Your task to perform on an android device: install app "Pandora - Music & Podcasts" Image 0: 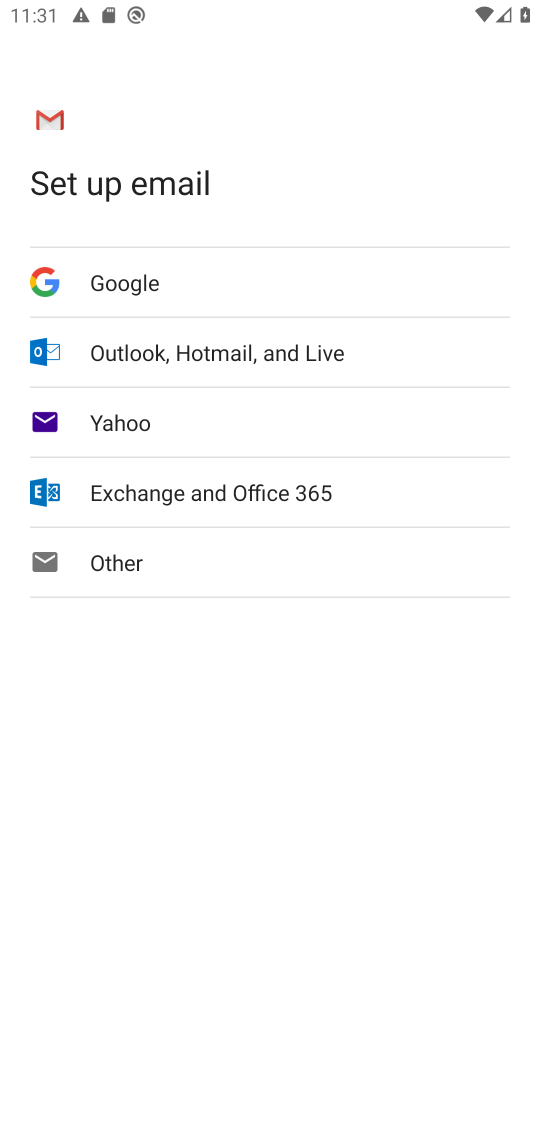
Step 0: press home button
Your task to perform on an android device: install app "Pandora - Music & Podcasts" Image 1: 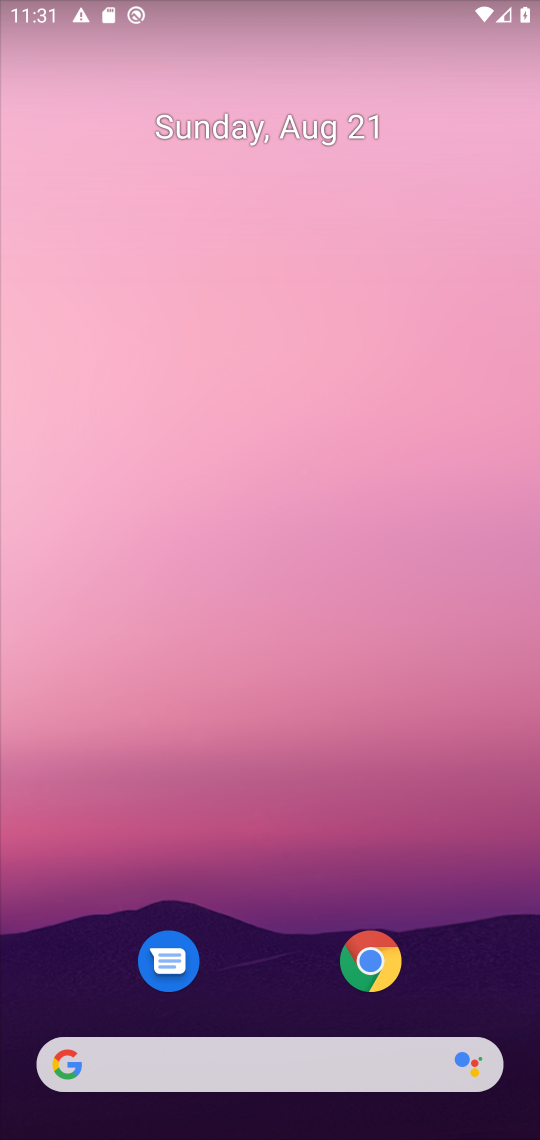
Step 1: drag from (447, 899) to (489, 91)
Your task to perform on an android device: install app "Pandora - Music & Podcasts" Image 2: 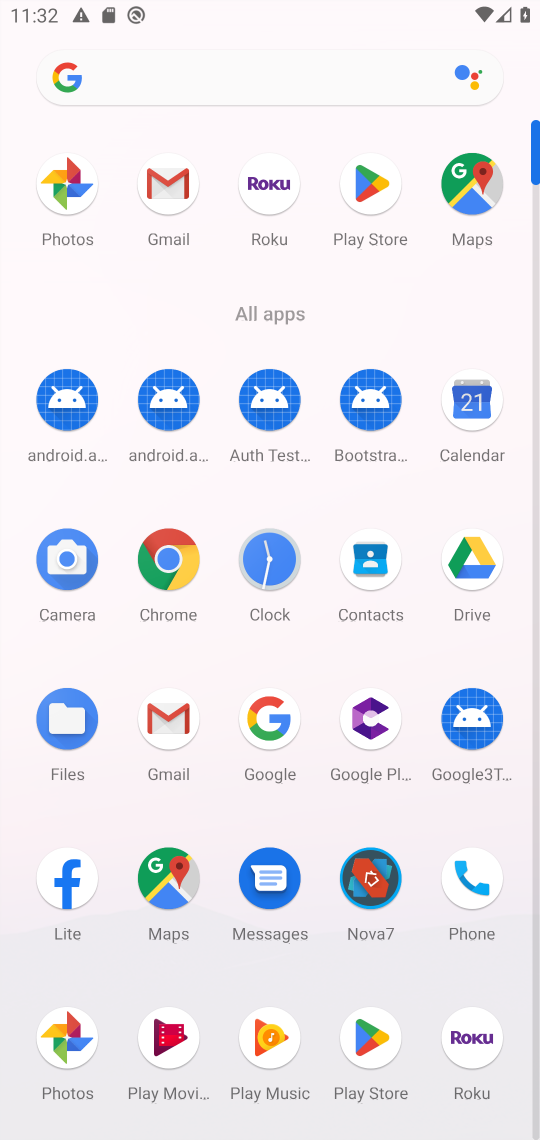
Step 2: click (365, 201)
Your task to perform on an android device: install app "Pandora - Music & Podcasts" Image 3: 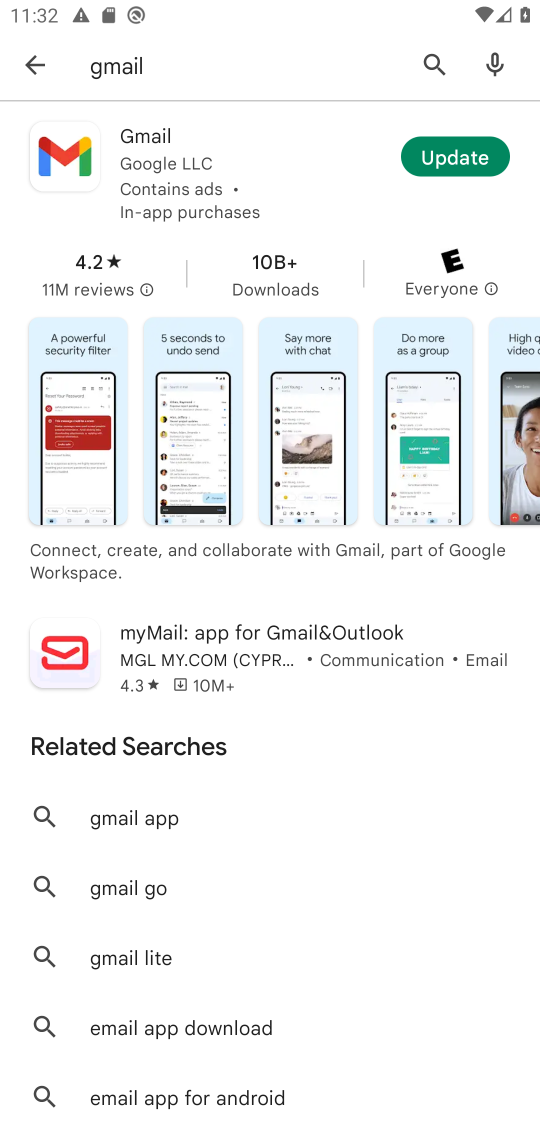
Step 3: press back button
Your task to perform on an android device: install app "Pandora - Music & Podcasts" Image 4: 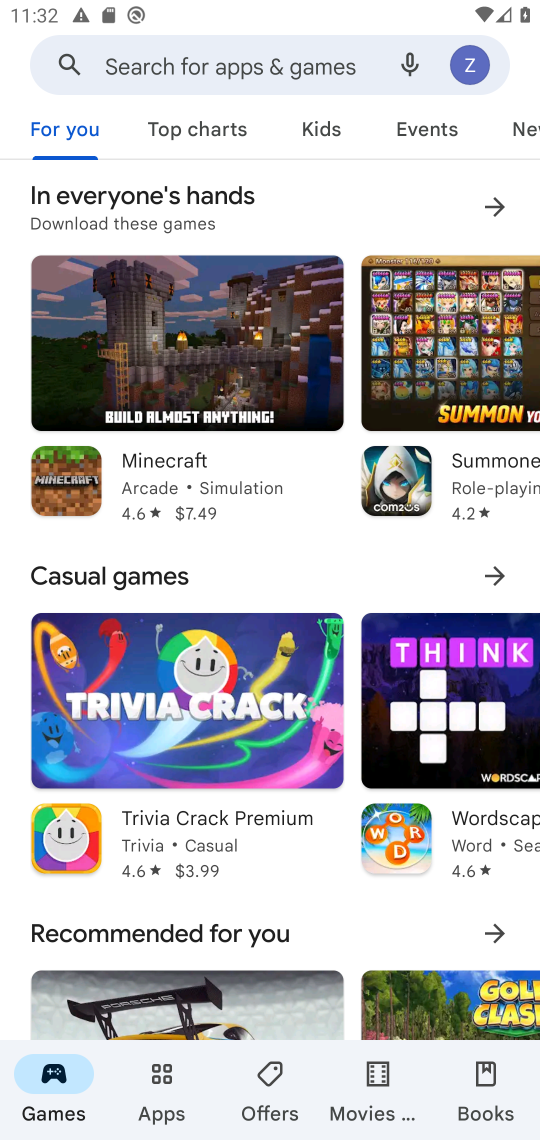
Step 4: click (280, 61)
Your task to perform on an android device: install app "Pandora - Music & Podcasts" Image 5: 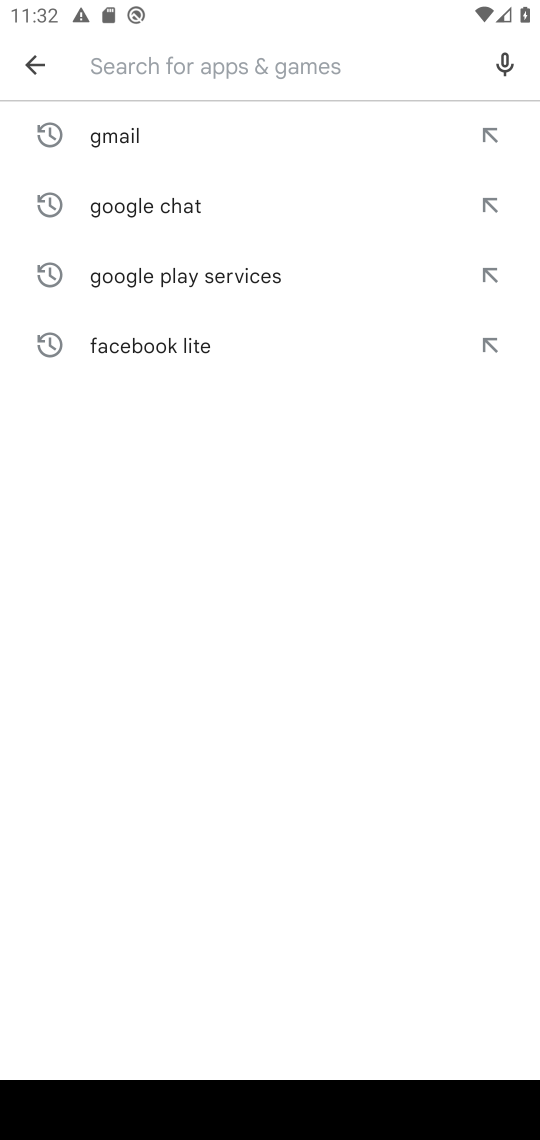
Step 5: press enter
Your task to perform on an android device: install app "Pandora - Music & Podcasts" Image 6: 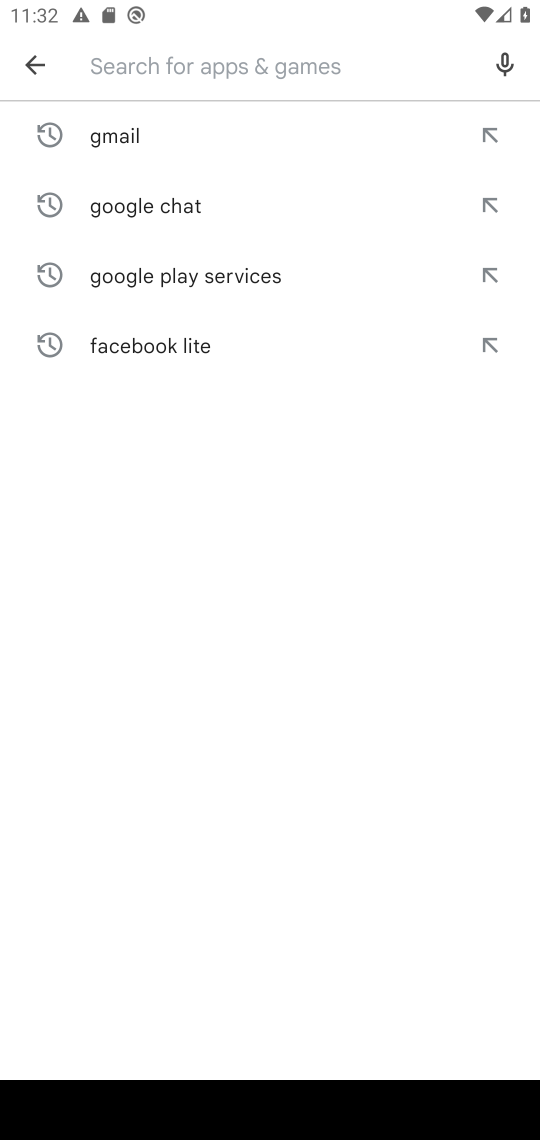
Step 6: type "Pandora - Music & Podcasts"
Your task to perform on an android device: install app "Pandora - Music & Podcasts" Image 7: 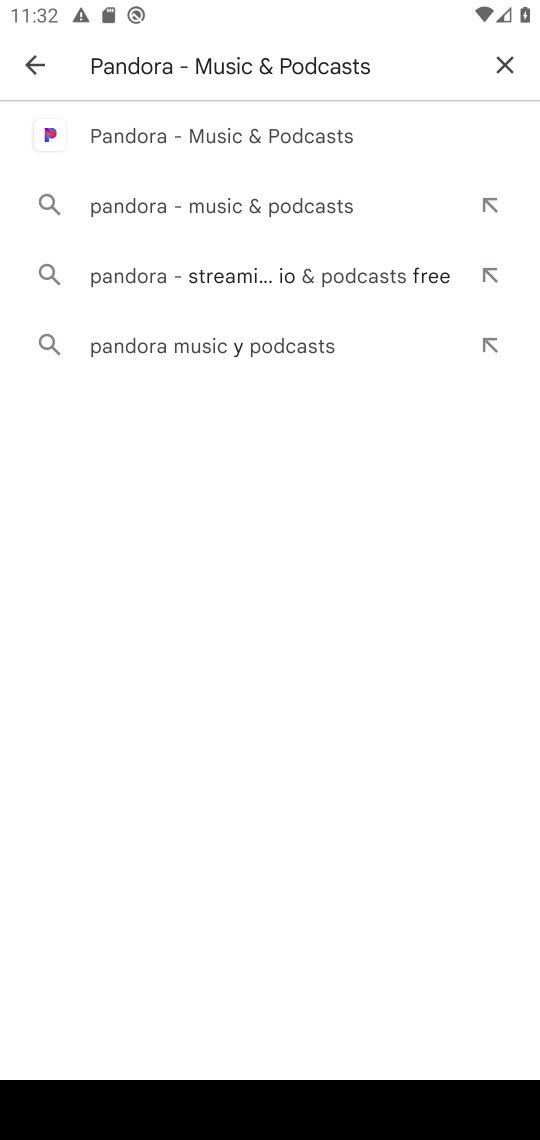
Step 7: click (281, 137)
Your task to perform on an android device: install app "Pandora - Music & Podcasts" Image 8: 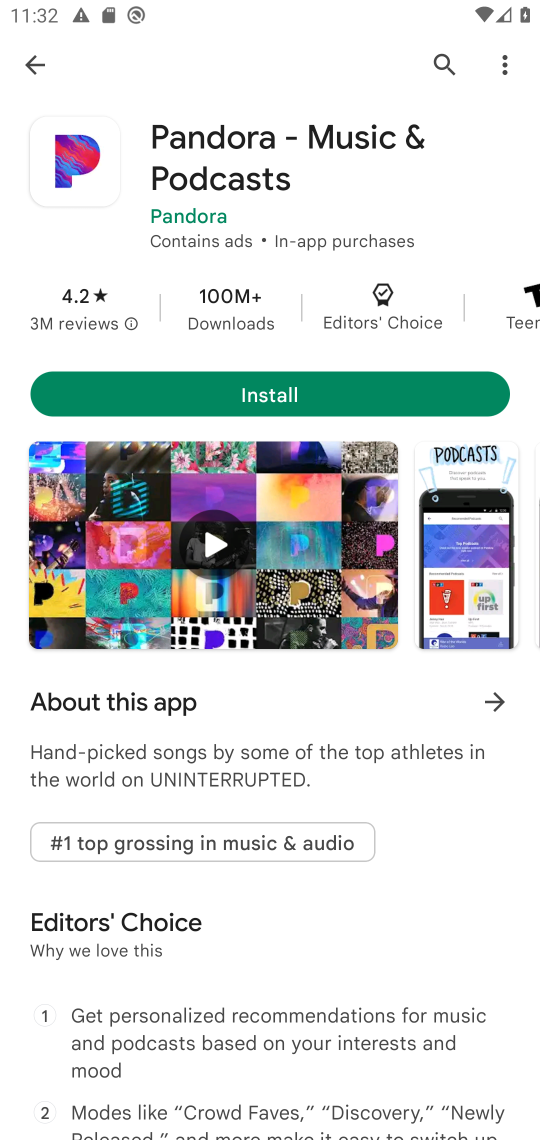
Step 8: click (434, 400)
Your task to perform on an android device: install app "Pandora - Music & Podcasts" Image 9: 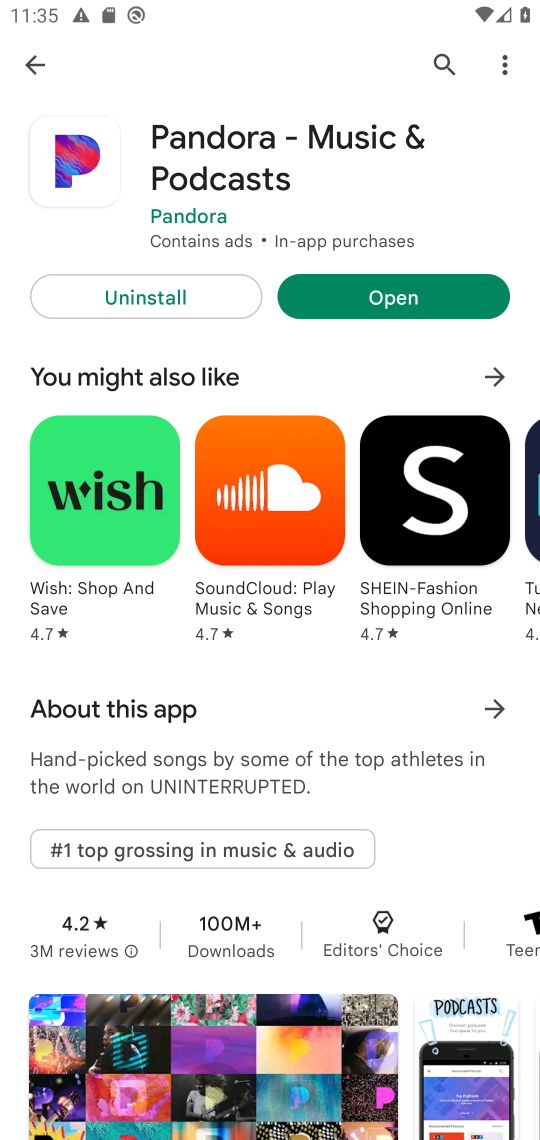
Step 9: task complete